Your task to perform on an android device: Do I have any events this weekend? Image 0: 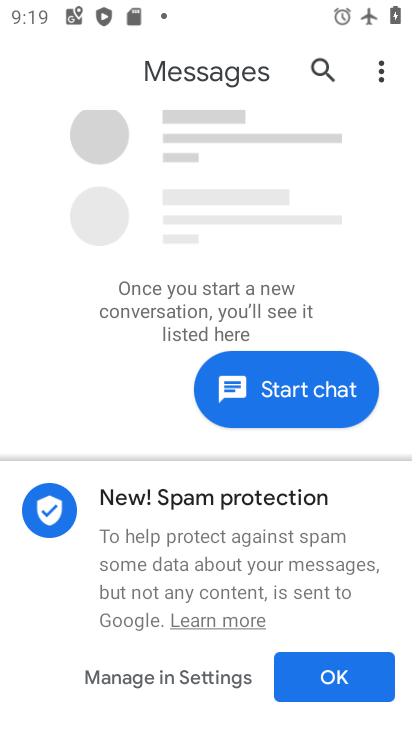
Step 0: press home button
Your task to perform on an android device: Do I have any events this weekend? Image 1: 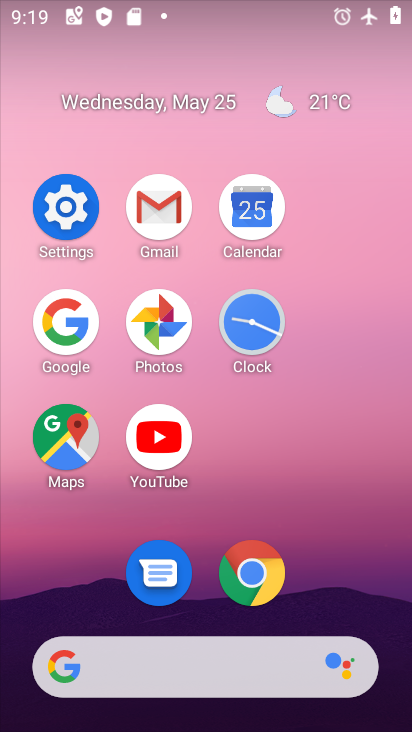
Step 1: click (248, 219)
Your task to perform on an android device: Do I have any events this weekend? Image 2: 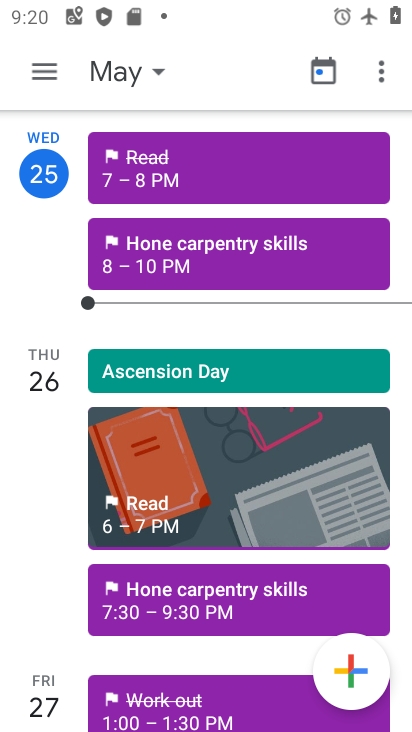
Step 2: click (42, 82)
Your task to perform on an android device: Do I have any events this weekend? Image 3: 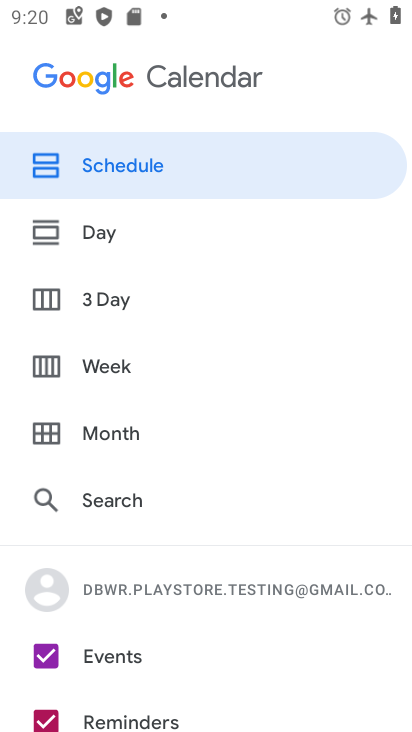
Step 3: click (146, 375)
Your task to perform on an android device: Do I have any events this weekend? Image 4: 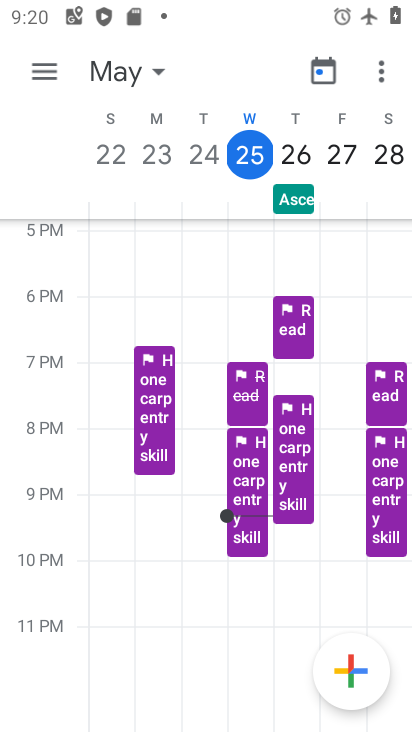
Step 4: click (385, 153)
Your task to perform on an android device: Do I have any events this weekend? Image 5: 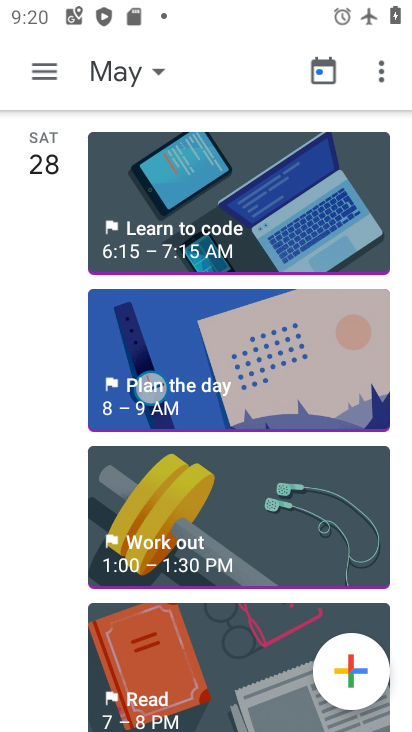
Step 5: task complete